Your task to perform on an android device: change the clock display to digital Image 0: 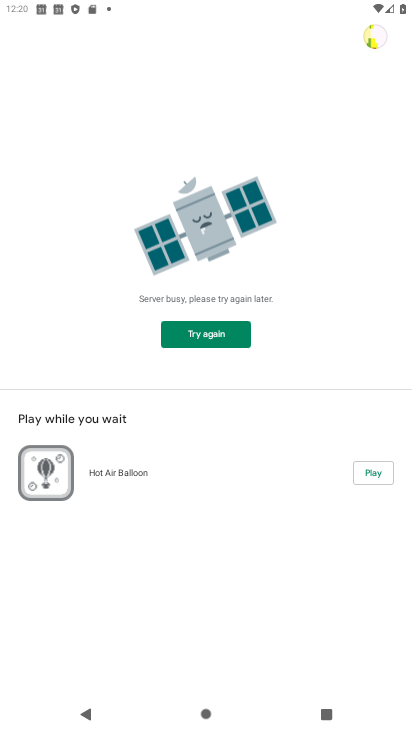
Step 0: press back button
Your task to perform on an android device: change the clock display to digital Image 1: 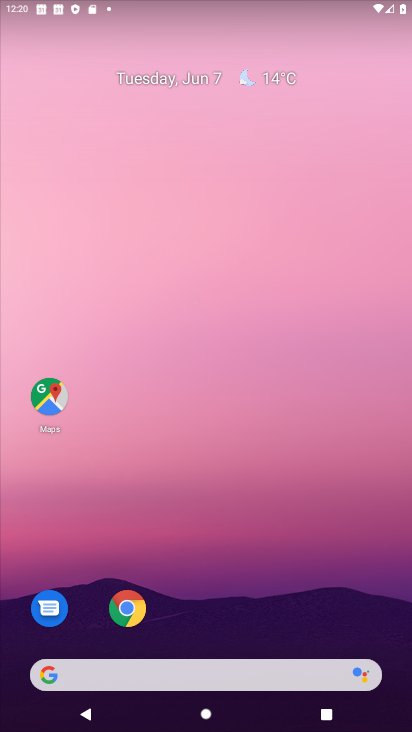
Step 1: drag from (222, 569) to (146, 19)
Your task to perform on an android device: change the clock display to digital Image 2: 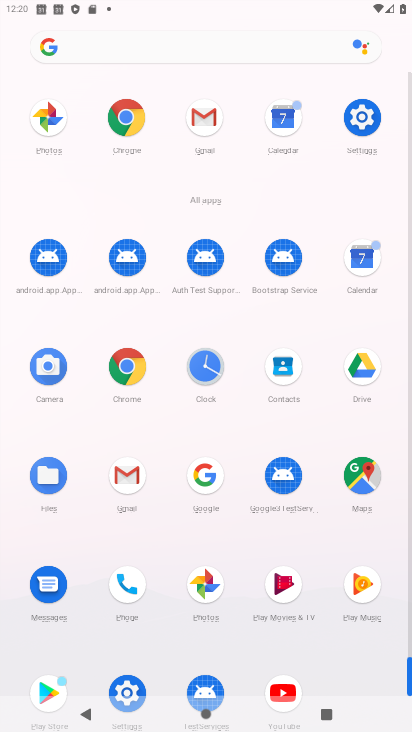
Step 2: drag from (13, 568) to (10, 187)
Your task to perform on an android device: change the clock display to digital Image 3: 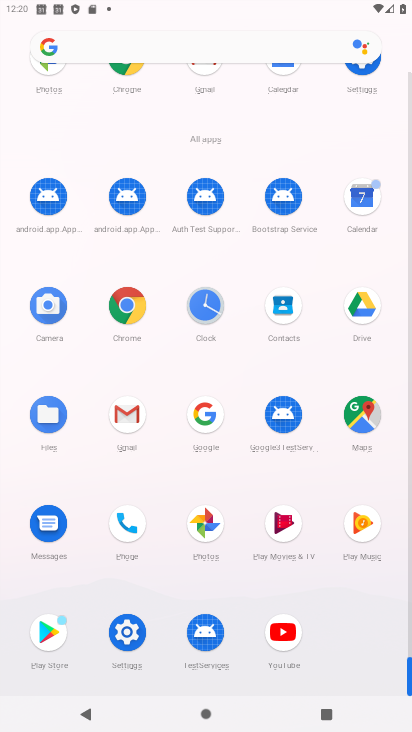
Step 3: click (208, 301)
Your task to perform on an android device: change the clock display to digital Image 4: 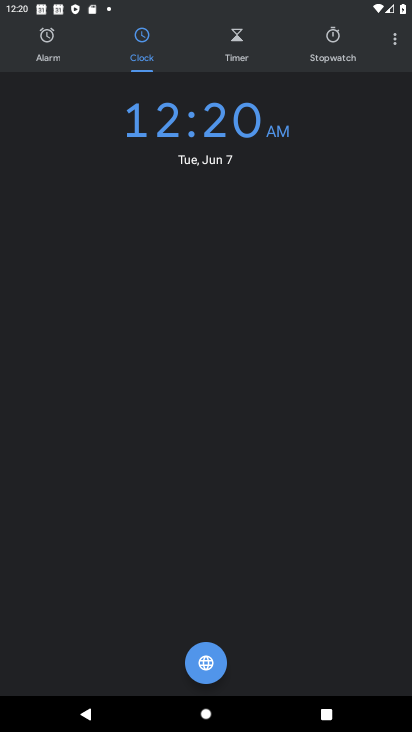
Step 4: task complete